Your task to perform on an android device: Go to notification settings Image 0: 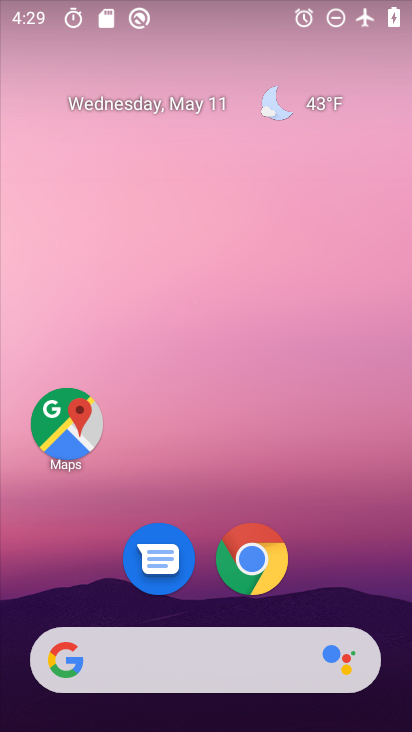
Step 0: drag from (334, 554) to (171, 70)
Your task to perform on an android device: Go to notification settings Image 1: 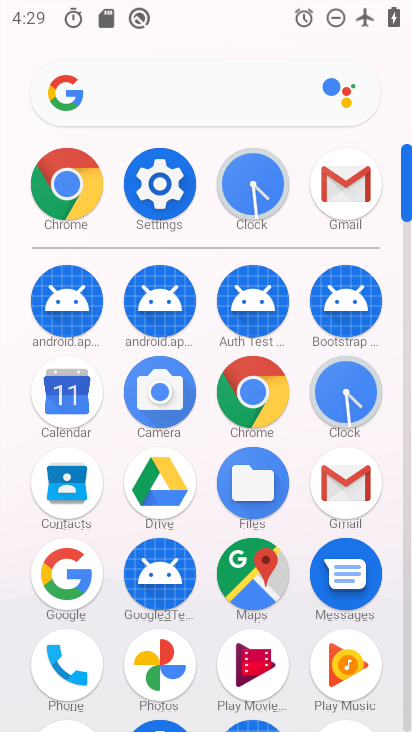
Step 1: click (158, 200)
Your task to perform on an android device: Go to notification settings Image 2: 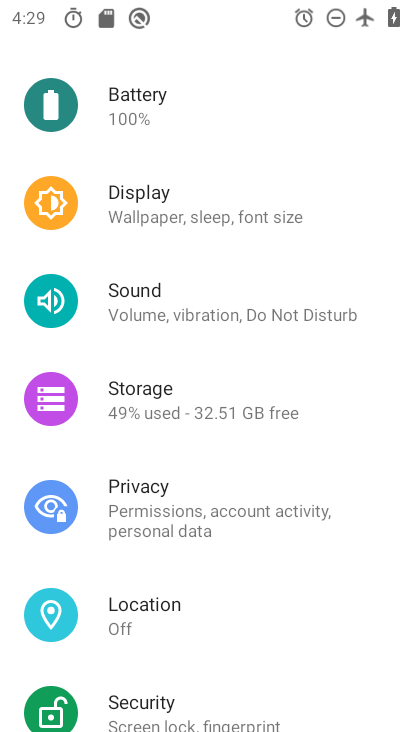
Step 2: drag from (235, 181) to (232, 559)
Your task to perform on an android device: Go to notification settings Image 3: 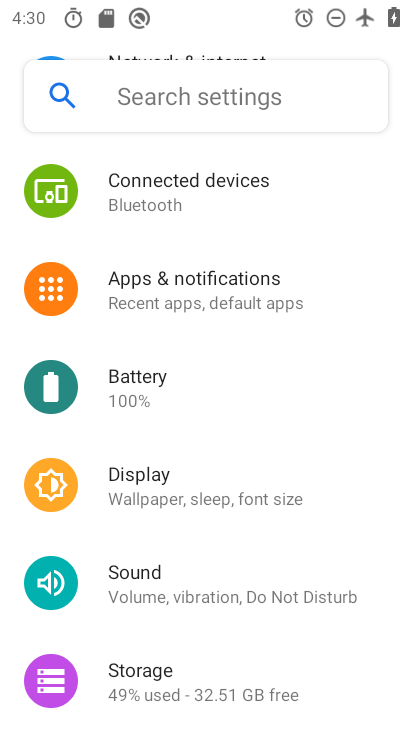
Step 3: click (203, 308)
Your task to perform on an android device: Go to notification settings Image 4: 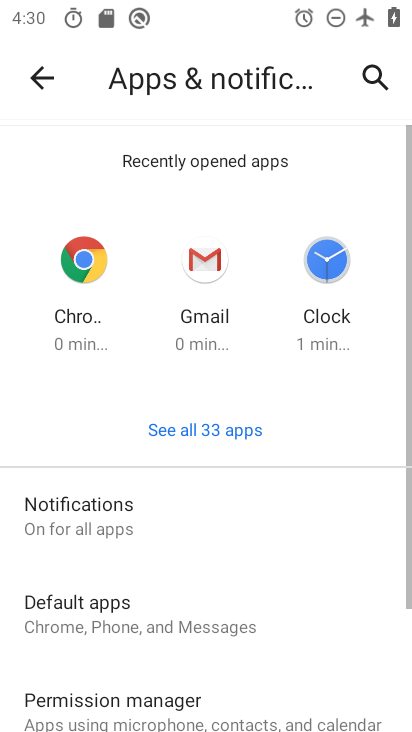
Step 4: task complete